Your task to perform on an android device: turn smart compose on in the gmail app Image 0: 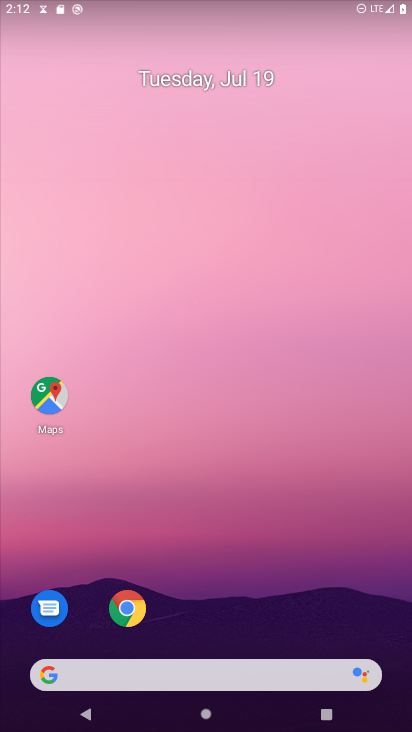
Step 0: drag from (335, 320) to (316, 87)
Your task to perform on an android device: turn smart compose on in the gmail app Image 1: 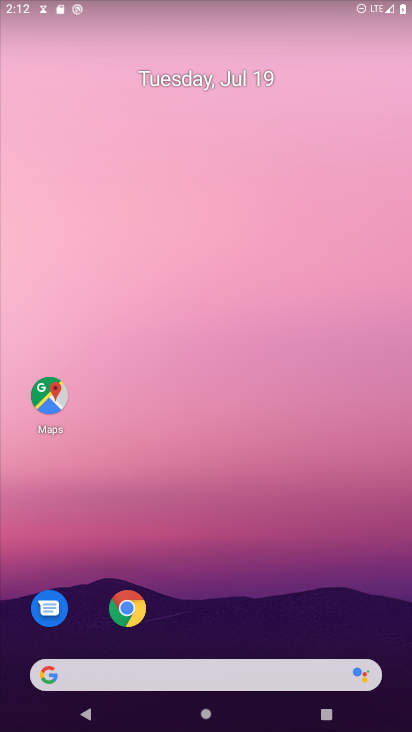
Step 1: drag from (269, 504) to (278, 100)
Your task to perform on an android device: turn smart compose on in the gmail app Image 2: 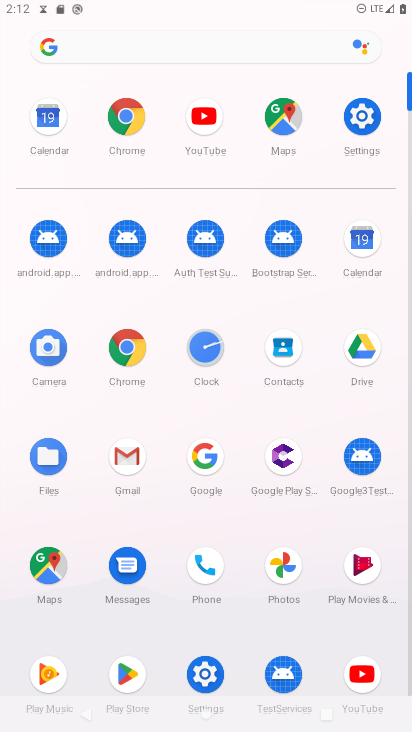
Step 2: click (126, 459)
Your task to perform on an android device: turn smart compose on in the gmail app Image 3: 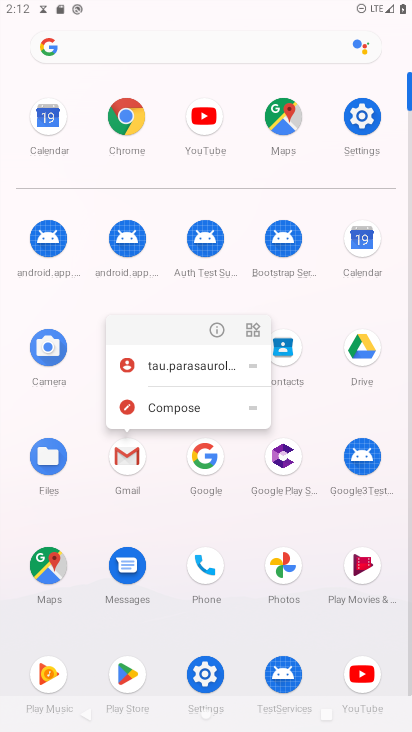
Step 3: click (126, 459)
Your task to perform on an android device: turn smart compose on in the gmail app Image 4: 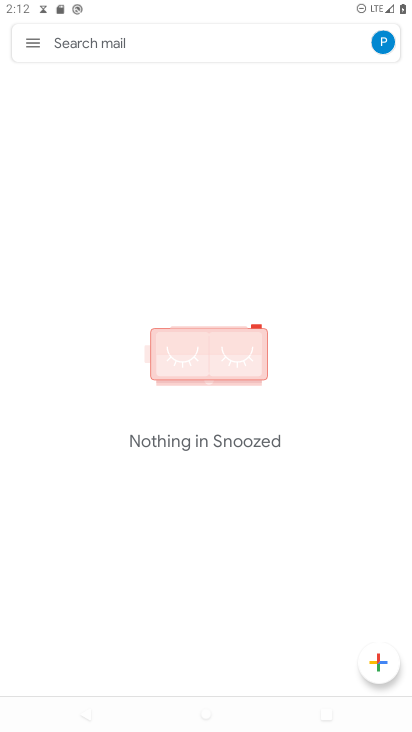
Step 4: click (35, 41)
Your task to perform on an android device: turn smart compose on in the gmail app Image 5: 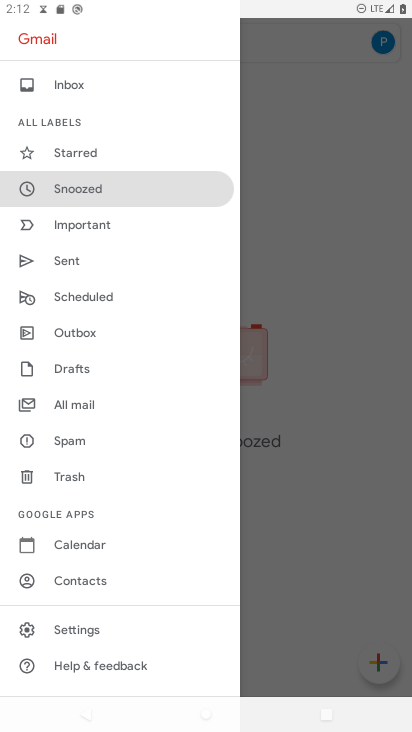
Step 5: click (98, 625)
Your task to perform on an android device: turn smart compose on in the gmail app Image 6: 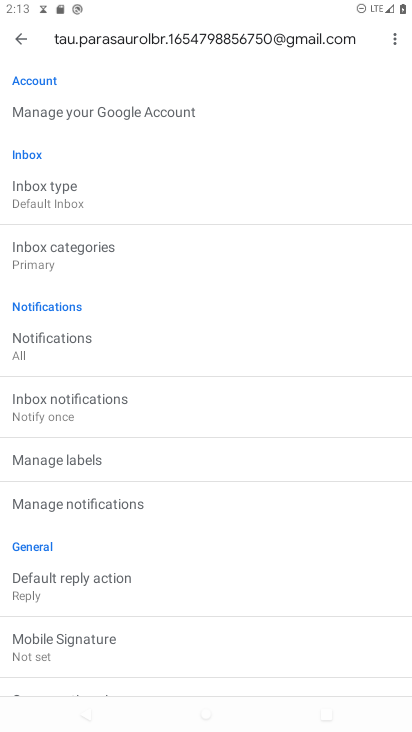
Step 6: task complete